Your task to perform on an android device: Open Google Image 0: 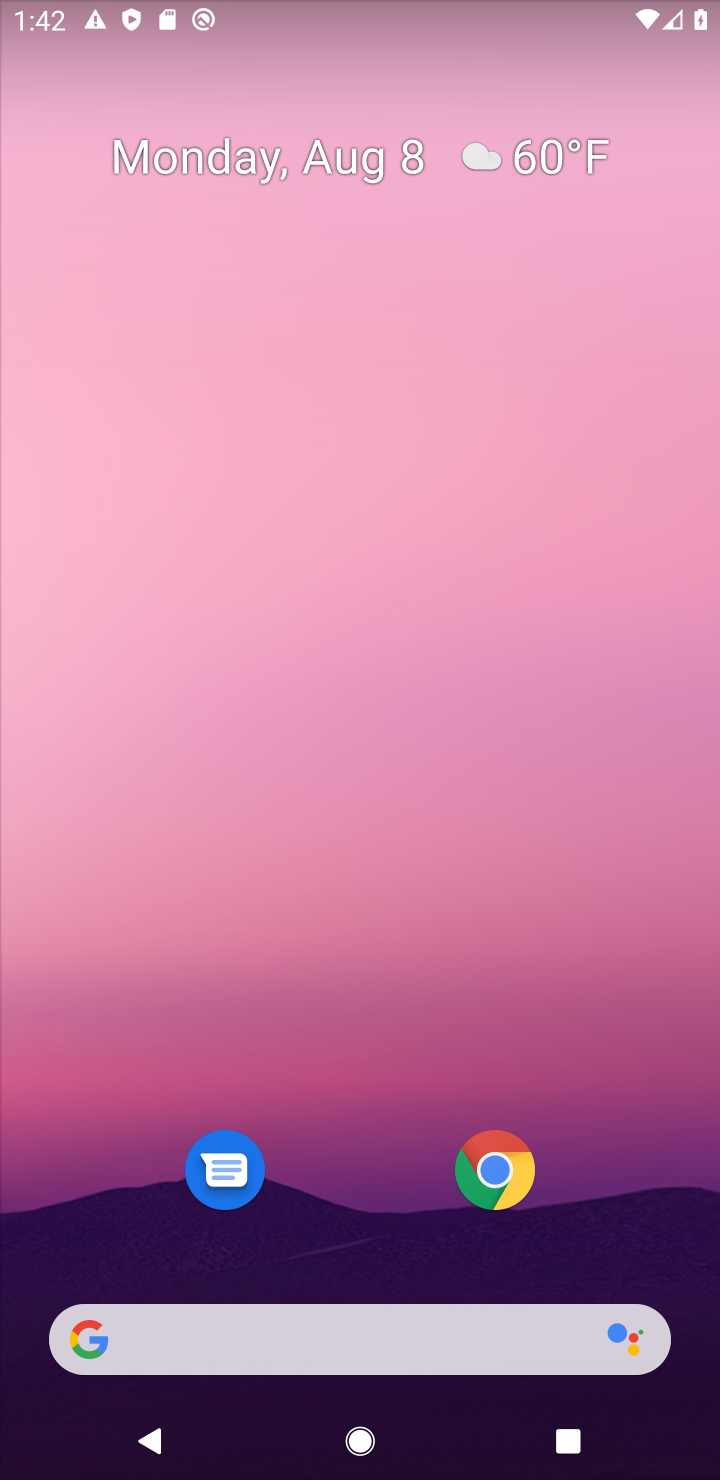
Step 0: drag from (333, 1184) to (340, 512)
Your task to perform on an android device: Open Google Image 1: 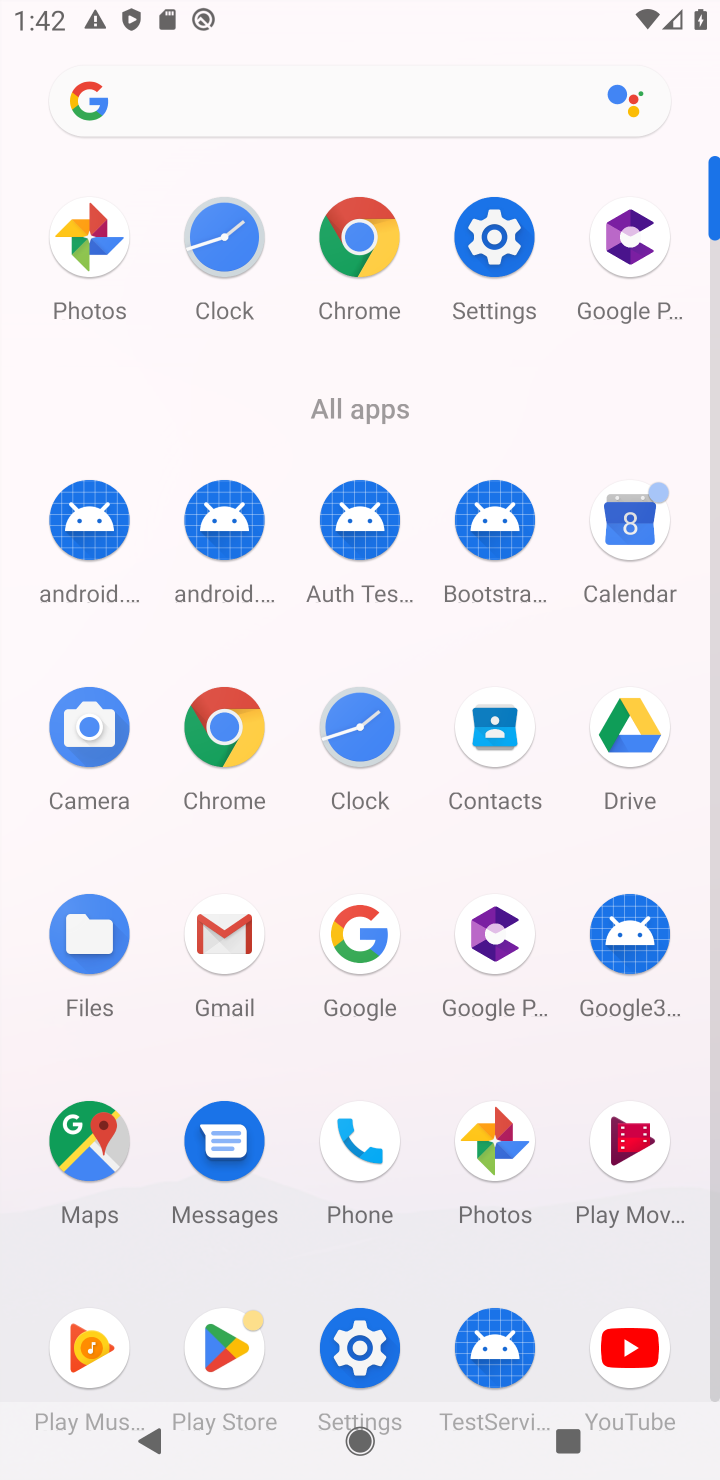
Step 1: click (356, 950)
Your task to perform on an android device: Open Google Image 2: 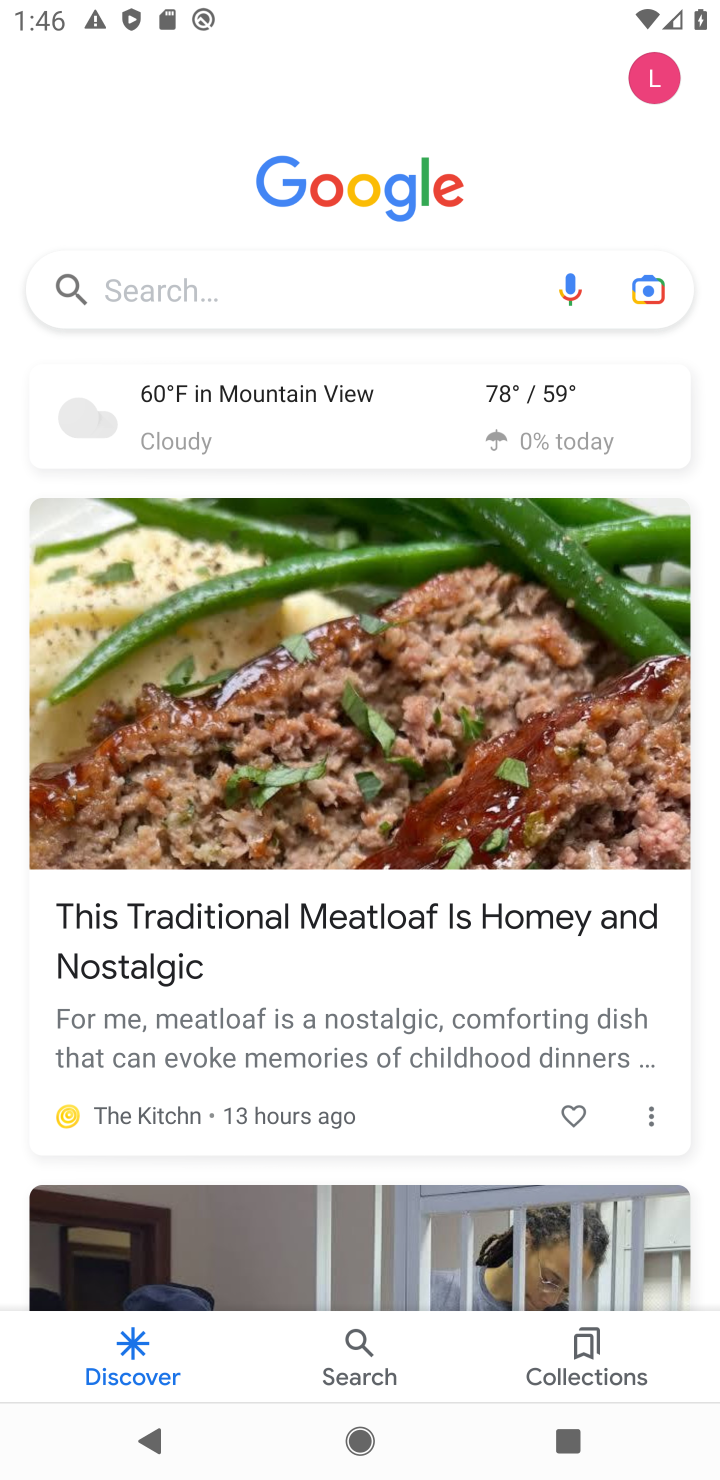
Step 2: task complete